Your task to perform on an android device: Add usb-a to usb-b to the cart on target.com, then select checkout. Image 0: 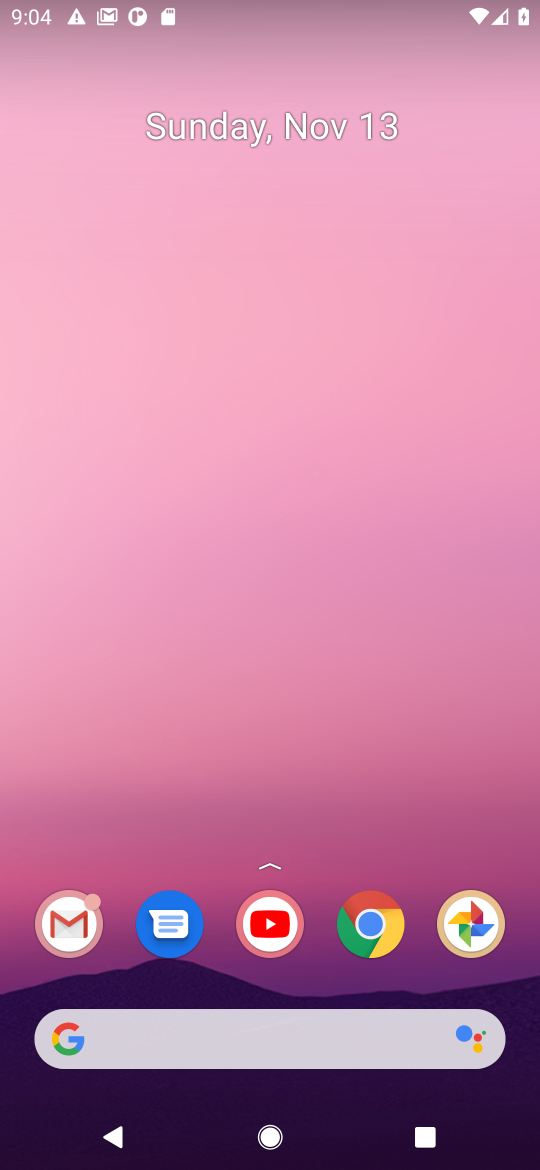
Step 0: click (359, 934)
Your task to perform on an android device: Add usb-a to usb-b to the cart on target.com, then select checkout. Image 1: 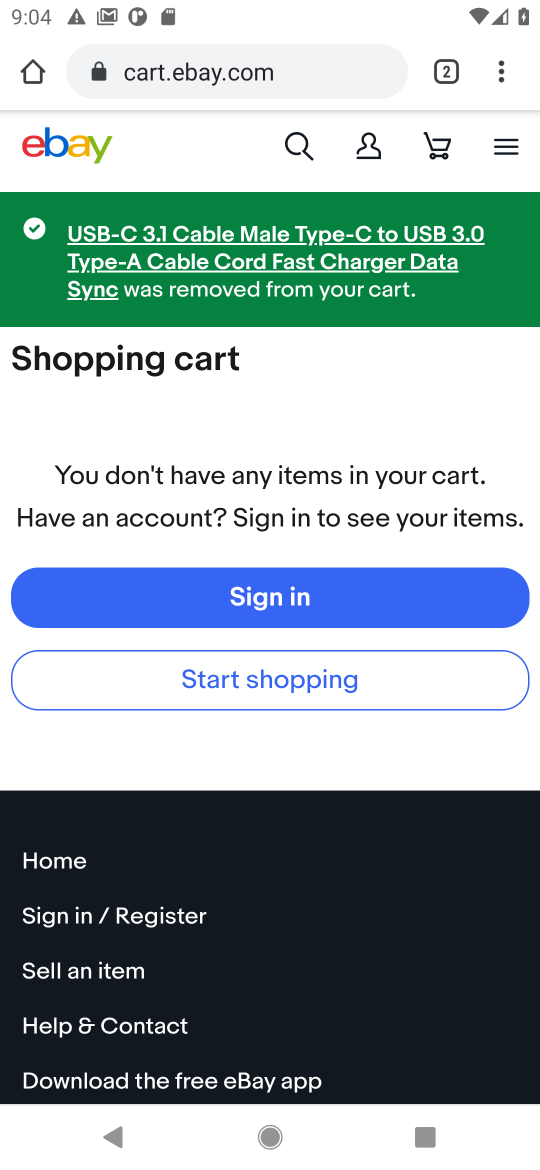
Step 1: click (198, 76)
Your task to perform on an android device: Add usb-a to usb-b to the cart on target.com, then select checkout. Image 2: 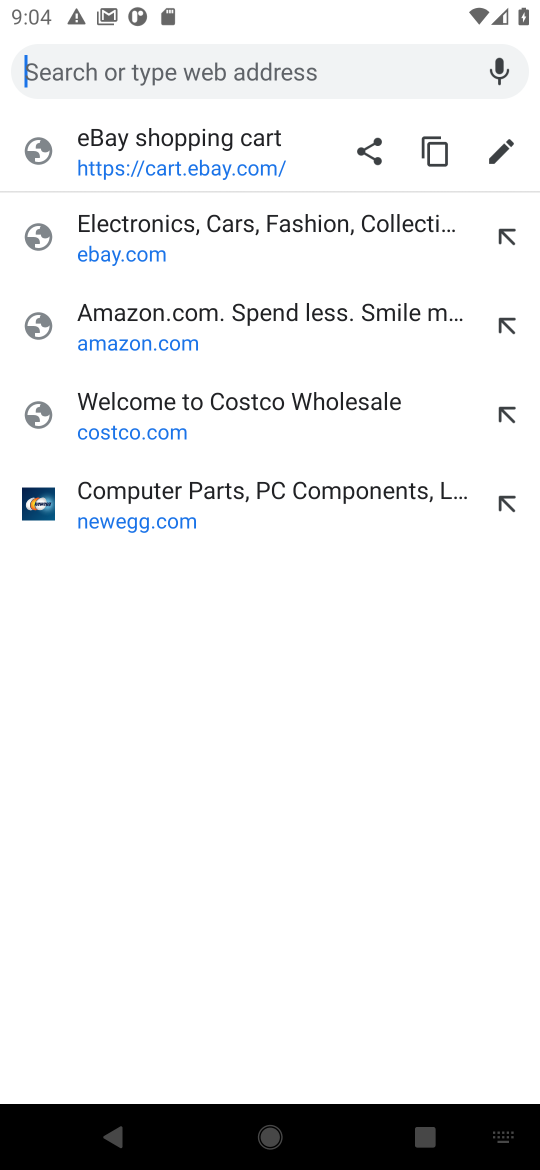
Step 2: type "target.com"
Your task to perform on an android device: Add usb-a to usb-b to the cart on target.com, then select checkout. Image 3: 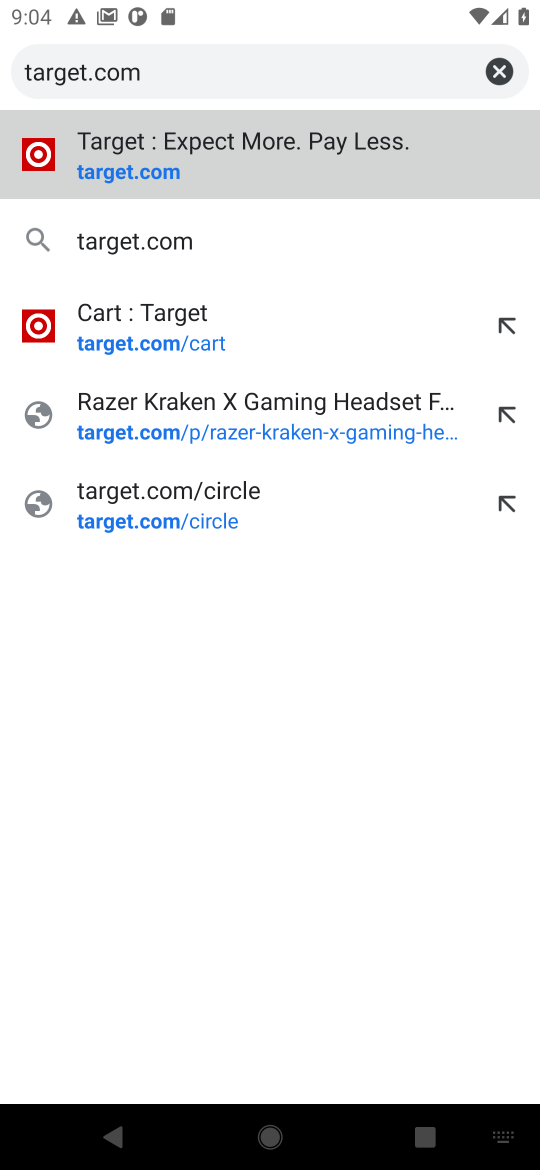
Step 3: click (130, 176)
Your task to perform on an android device: Add usb-a to usb-b to the cart on target.com, then select checkout. Image 4: 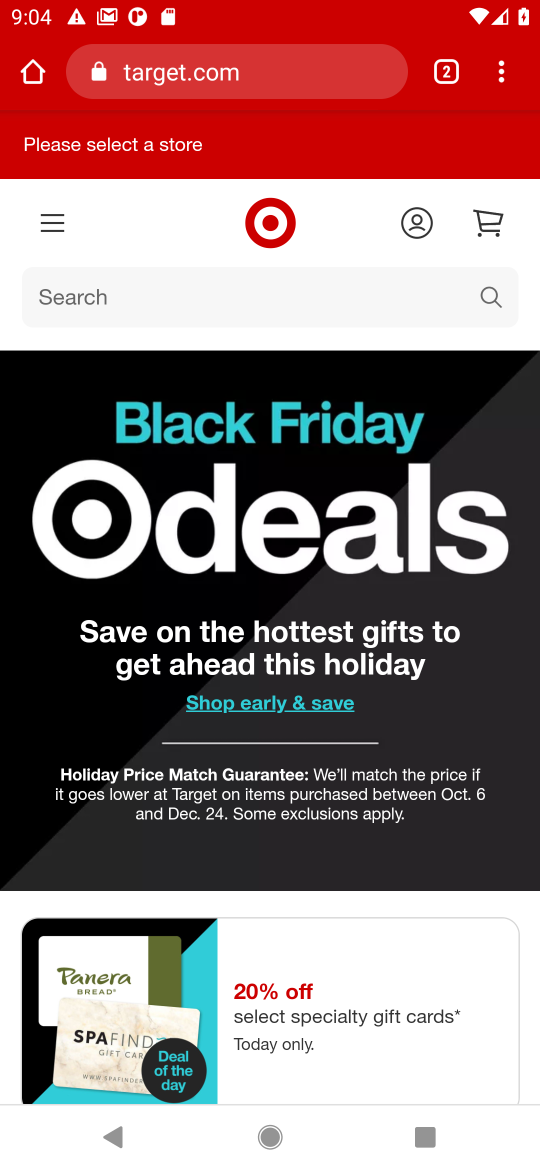
Step 4: click (486, 289)
Your task to perform on an android device: Add usb-a to usb-b to the cart on target.com, then select checkout. Image 5: 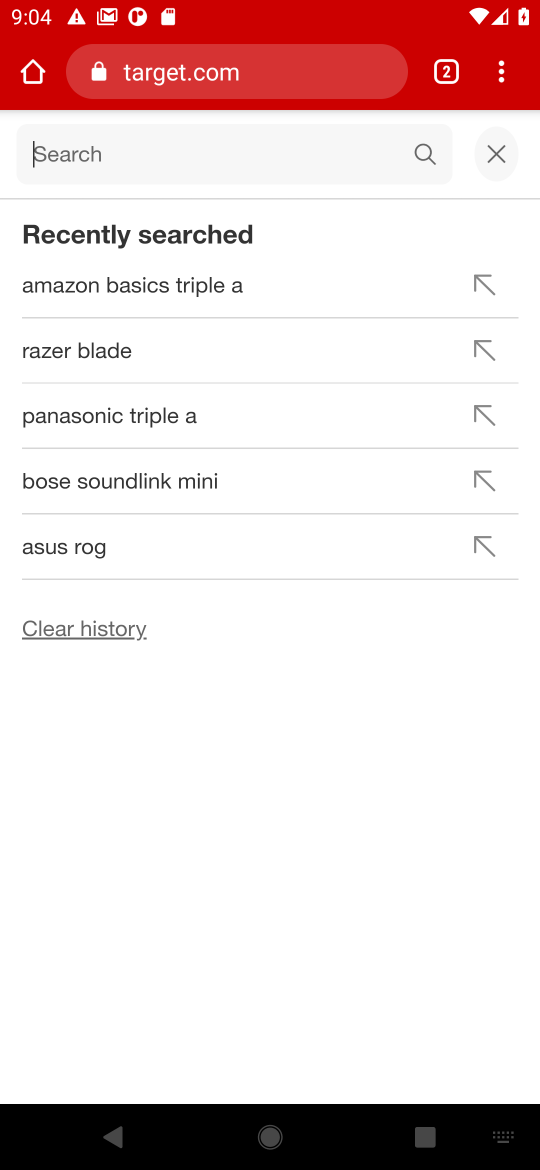
Step 5: type "usb-a to usb-b"
Your task to perform on an android device: Add usb-a to usb-b to the cart on target.com, then select checkout. Image 6: 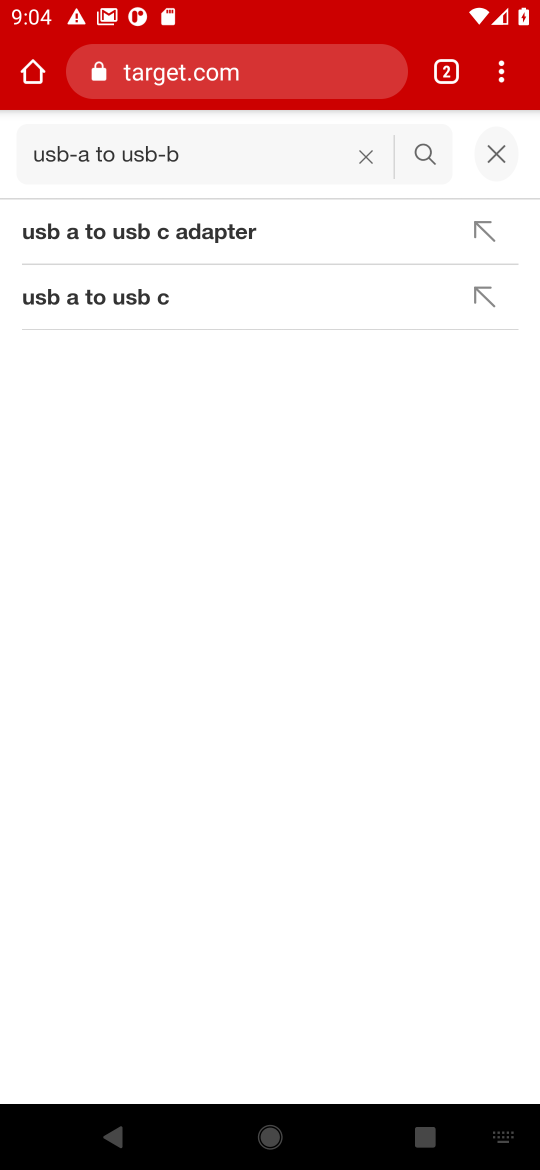
Step 6: click (418, 155)
Your task to perform on an android device: Add usb-a to usb-b to the cart on target.com, then select checkout. Image 7: 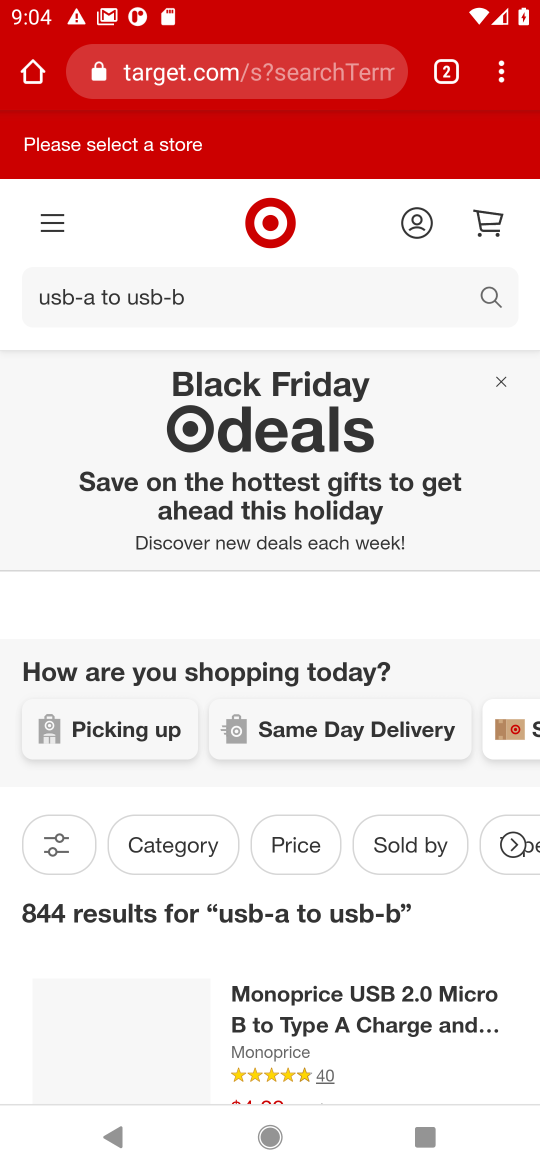
Step 7: drag from (206, 890) to (205, 442)
Your task to perform on an android device: Add usb-a to usb-b to the cart on target.com, then select checkout. Image 8: 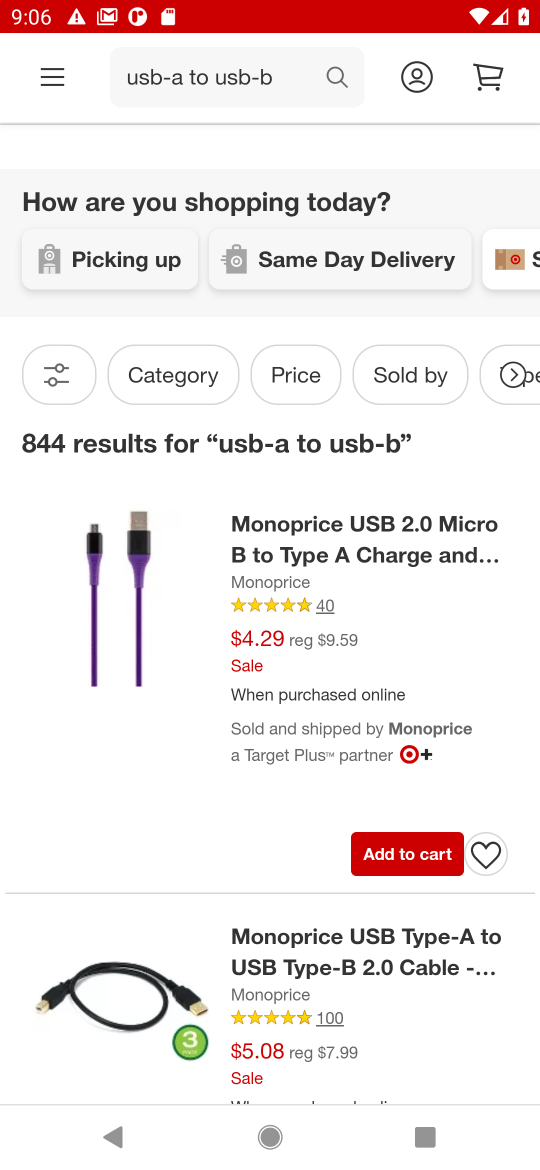
Step 8: click (126, 992)
Your task to perform on an android device: Add usb-a to usb-b to the cart on target.com, then select checkout. Image 9: 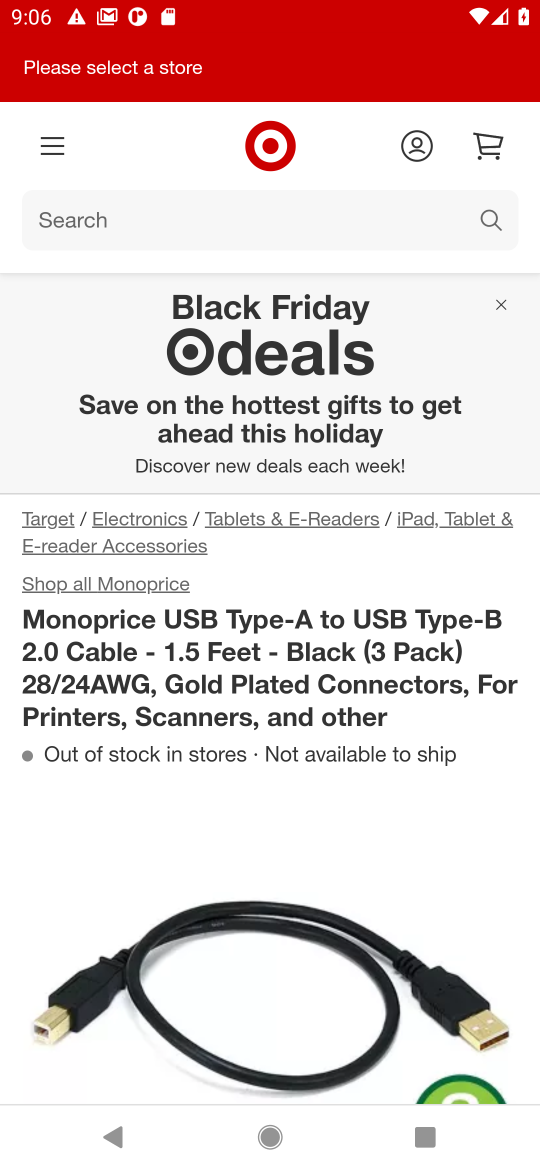
Step 9: drag from (212, 953) to (227, 281)
Your task to perform on an android device: Add usb-a to usb-b to the cart on target.com, then select checkout. Image 10: 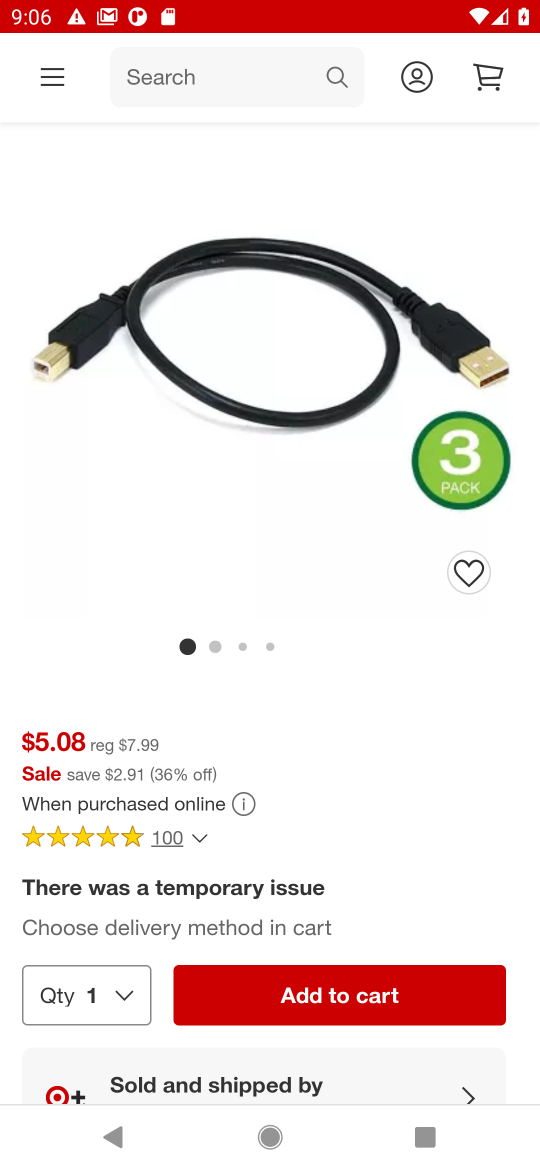
Step 10: click (335, 991)
Your task to perform on an android device: Add usb-a to usb-b to the cart on target.com, then select checkout. Image 11: 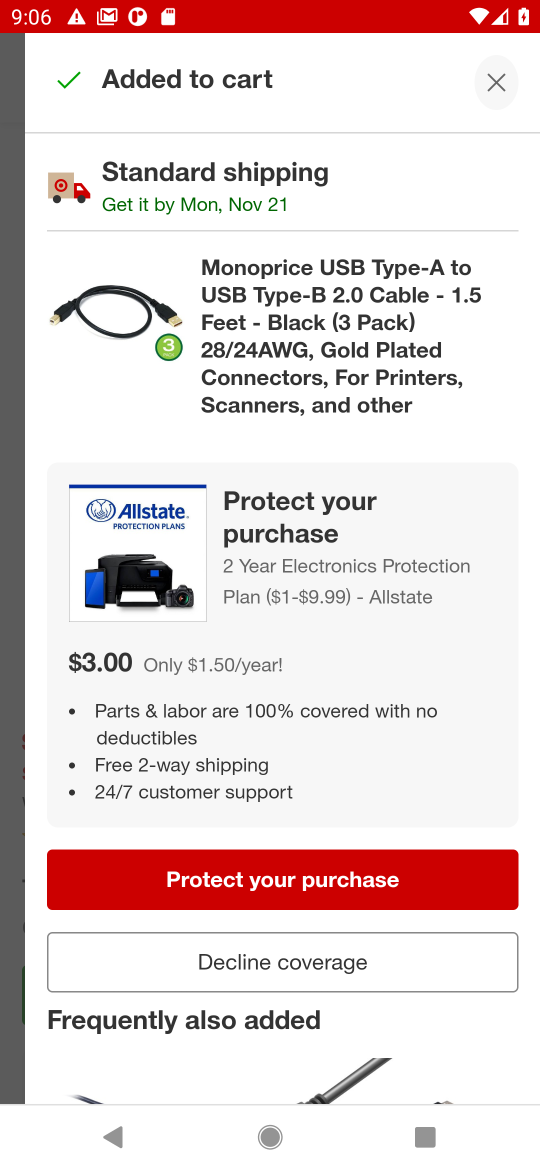
Step 11: click (491, 74)
Your task to perform on an android device: Add usb-a to usb-b to the cart on target.com, then select checkout. Image 12: 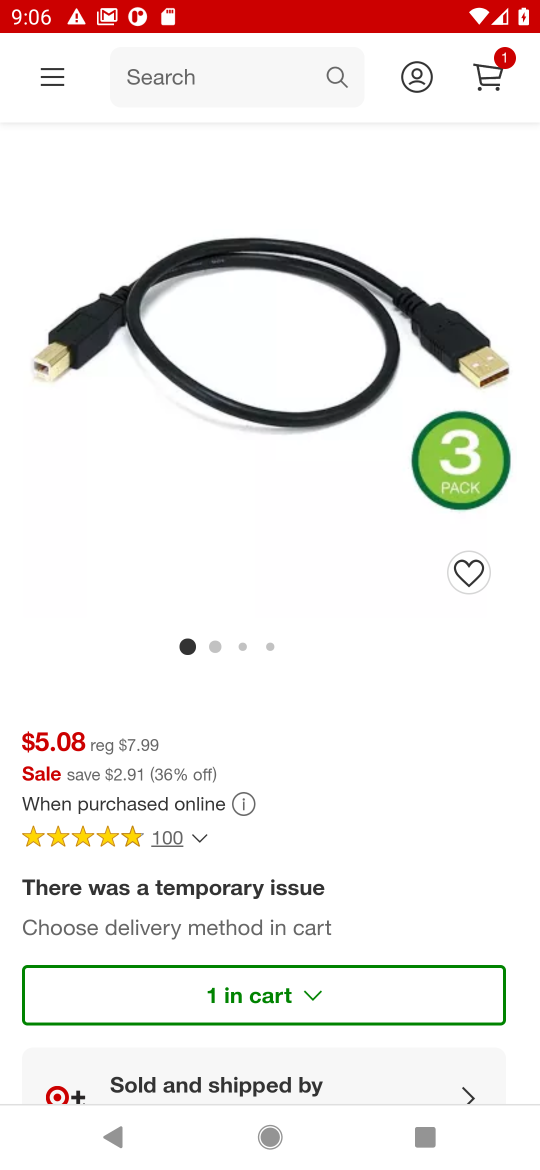
Step 12: click (491, 63)
Your task to perform on an android device: Add usb-a to usb-b to the cart on target.com, then select checkout. Image 13: 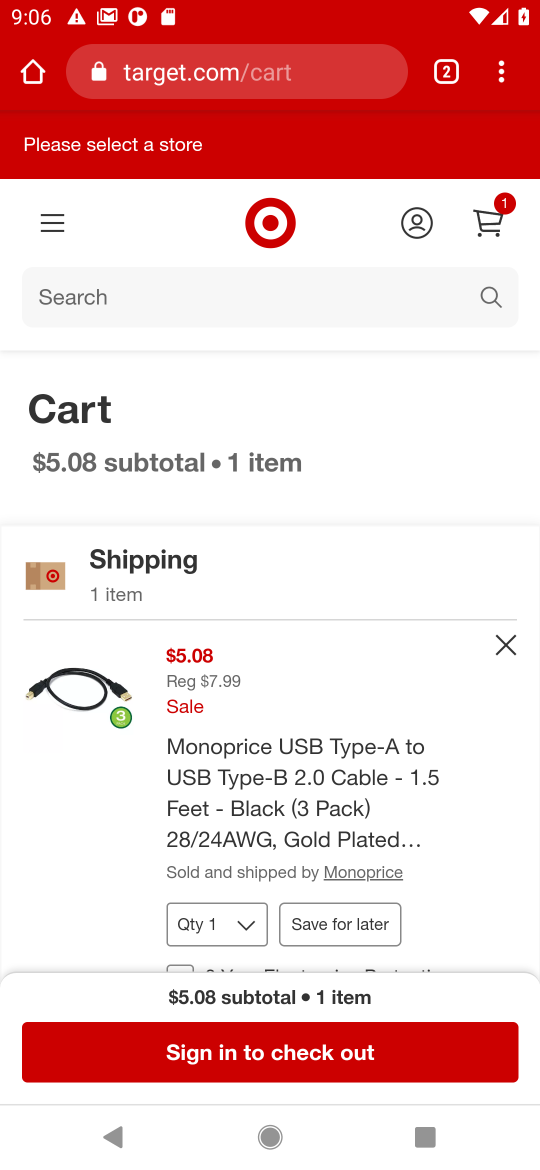
Step 13: click (277, 1043)
Your task to perform on an android device: Add usb-a to usb-b to the cart on target.com, then select checkout. Image 14: 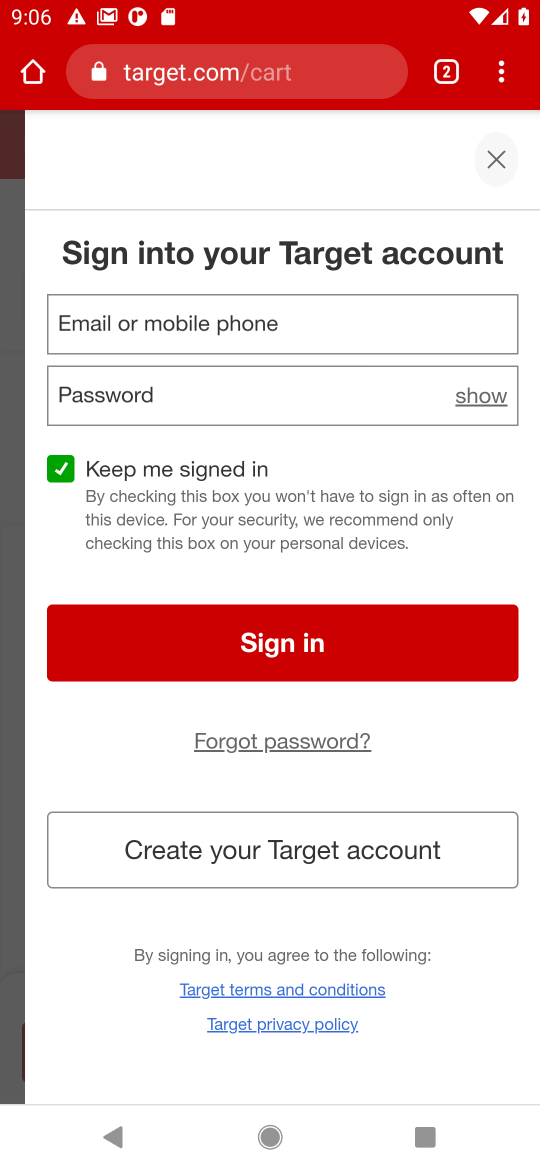
Step 14: task complete